Your task to perform on an android device: Set an alarm for 11am Image 0: 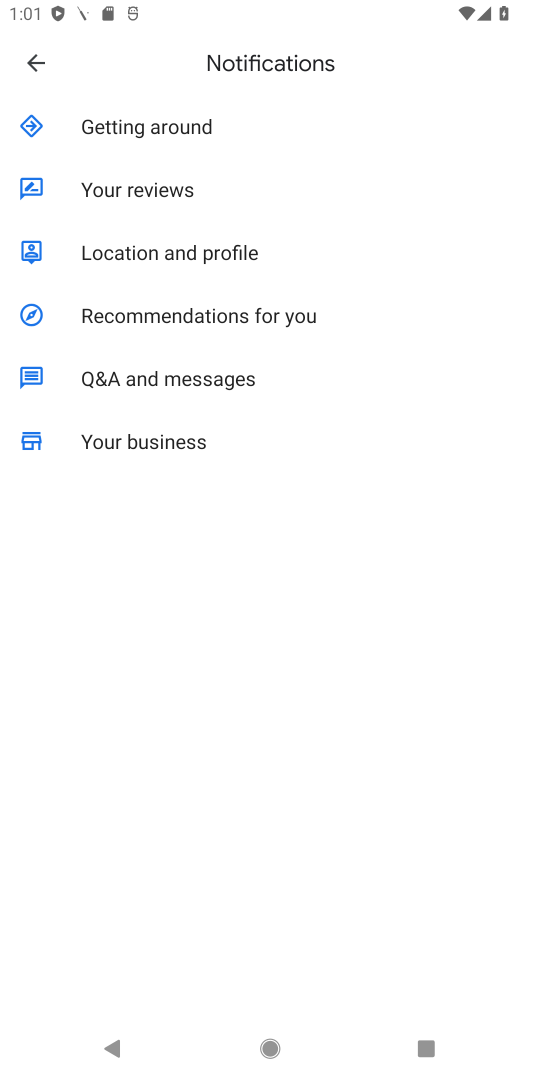
Step 0: press home button
Your task to perform on an android device: Set an alarm for 11am Image 1: 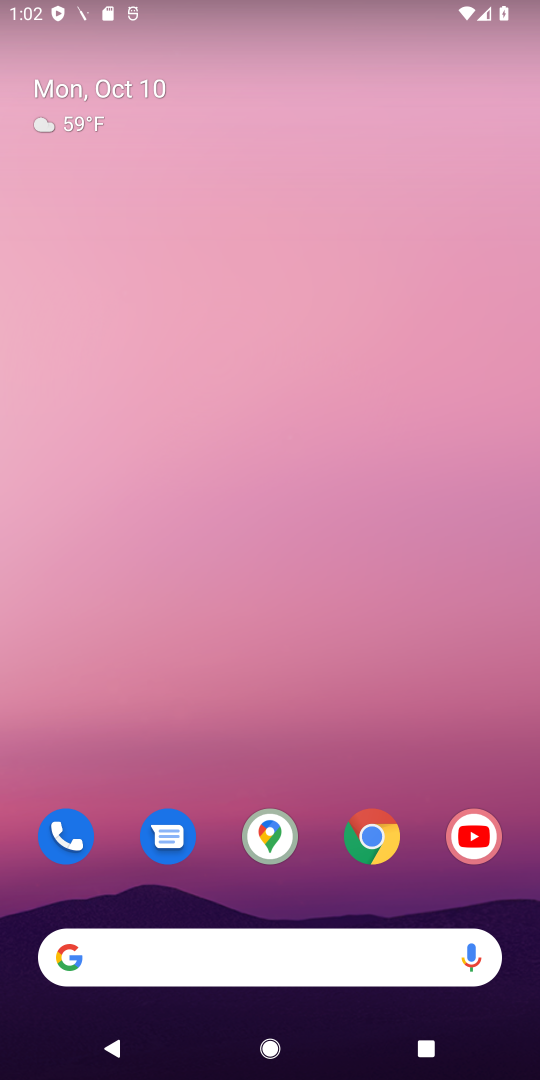
Step 1: drag from (409, 765) to (377, 549)
Your task to perform on an android device: Set an alarm for 11am Image 2: 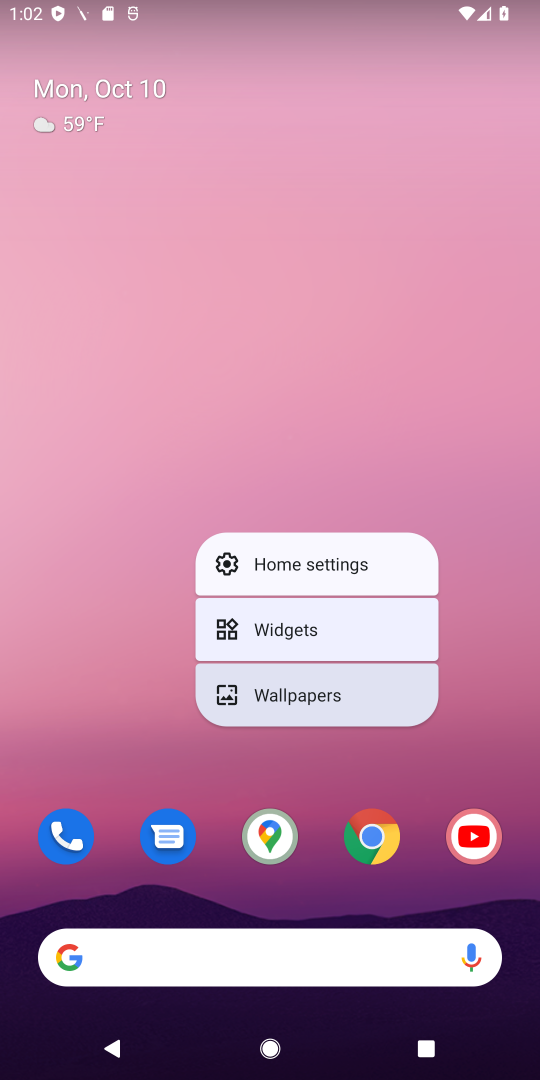
Step 2: click (505, 419)
Your task to perform on an android device: Set an alarm for 11am Image 3: 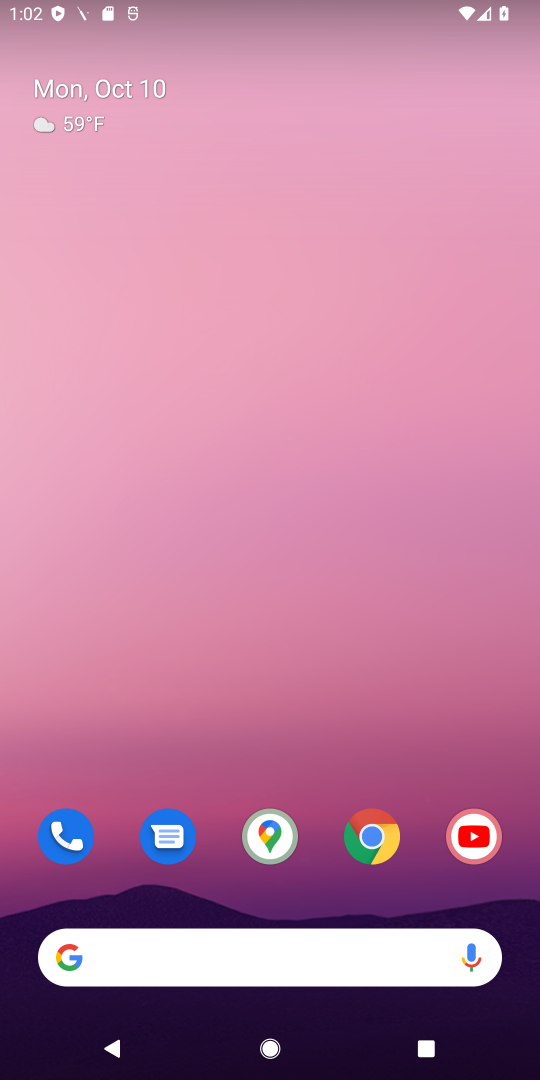
Step 3: drag from (345, 785) to (326, 292)
Your task to perform on an android device: Set an alarm for 11am Image 4: 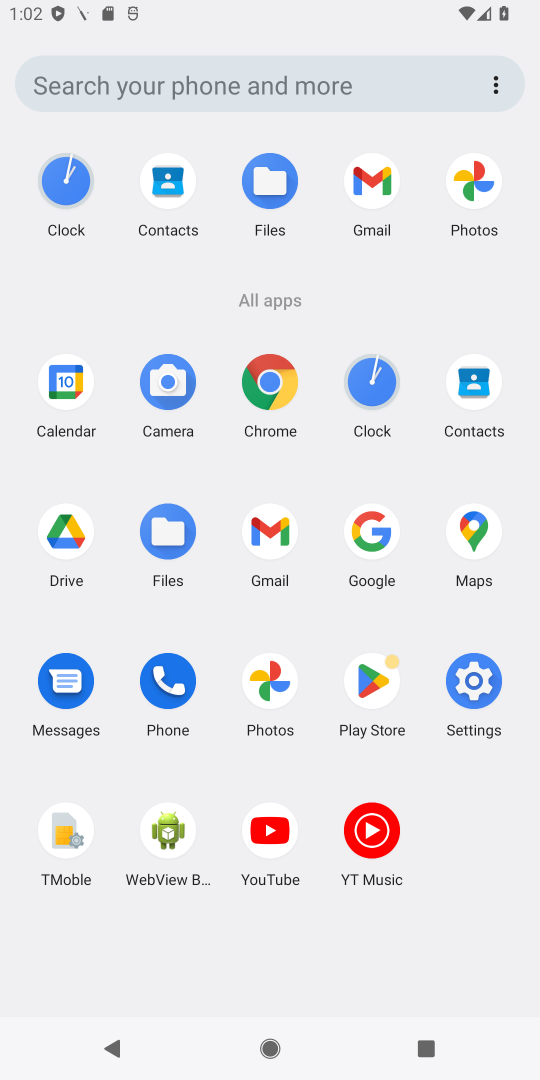
Step 4: click (388, 385)
Your task to perform on an android device: Set an alarm for 11am Image 5: 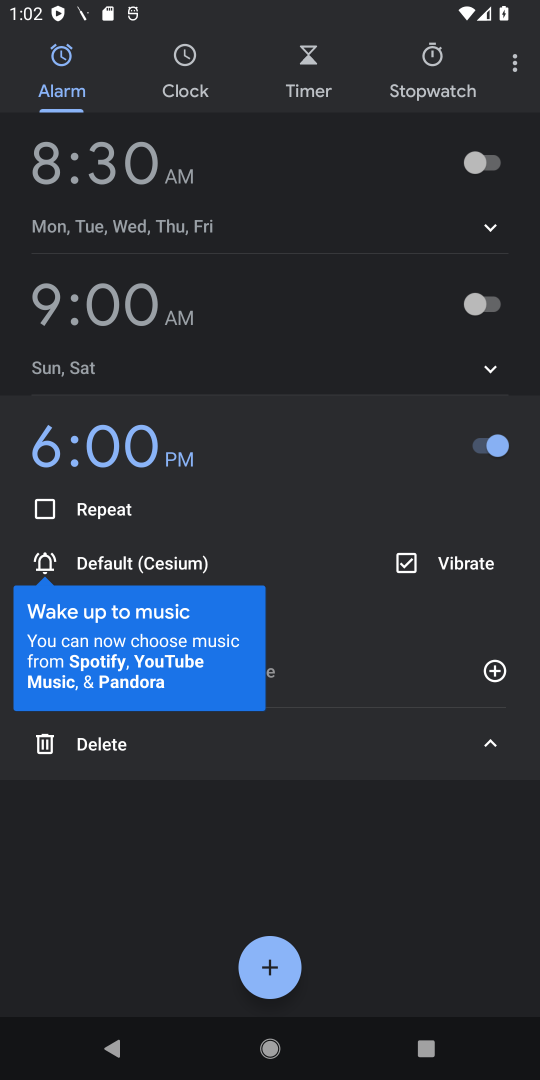
Step 5: click (290, 960)
Your task to perform on an android device: Set an alarm for 11am Image 6: 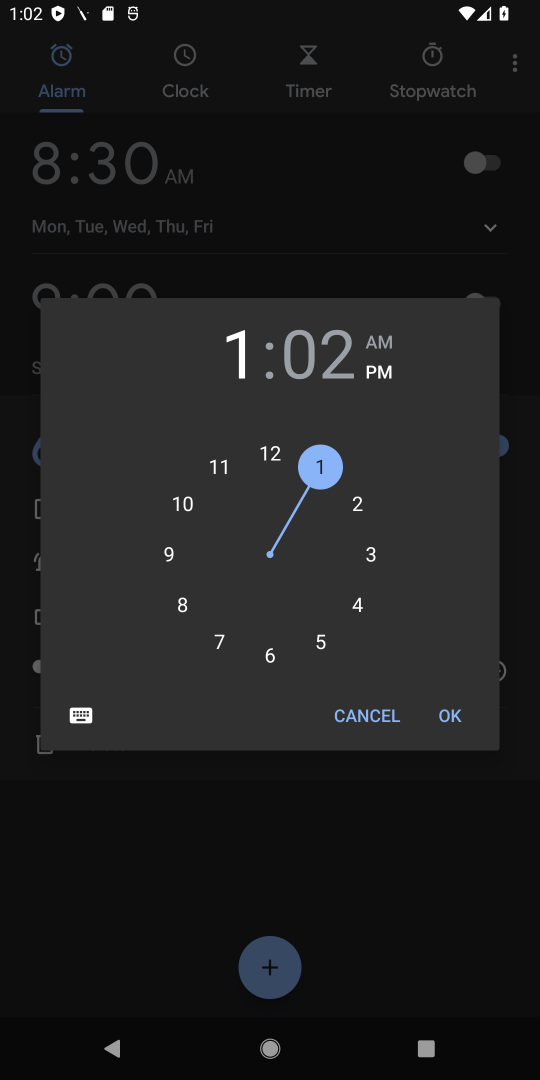
Step 6: click (224, 467)
Your task to perform on an android device: Set an alarm for 11am Image 7: 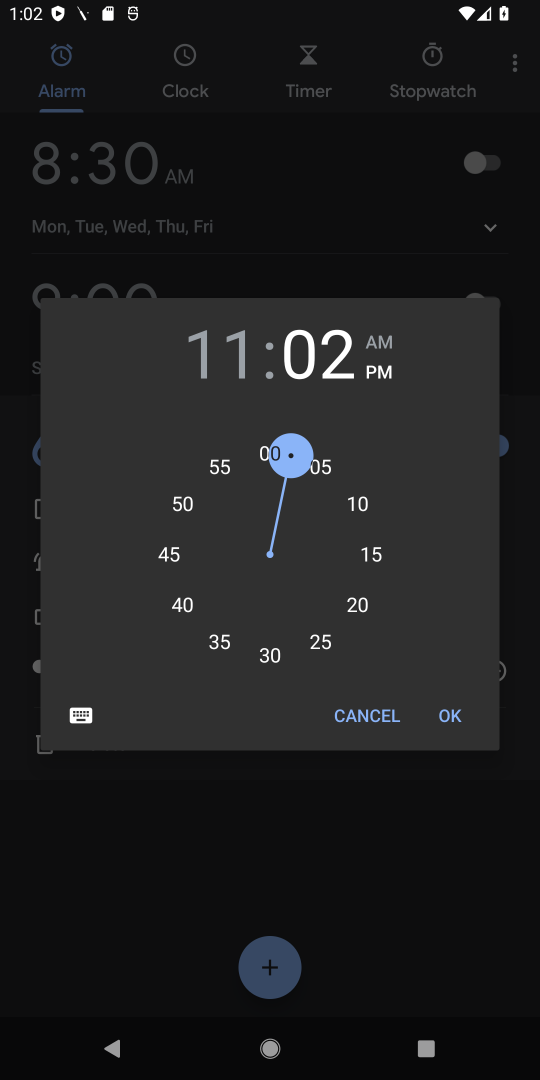
Step 7: click (271, 460)
Your task to perform on an android device: Set an alarm for 11am Image 8: 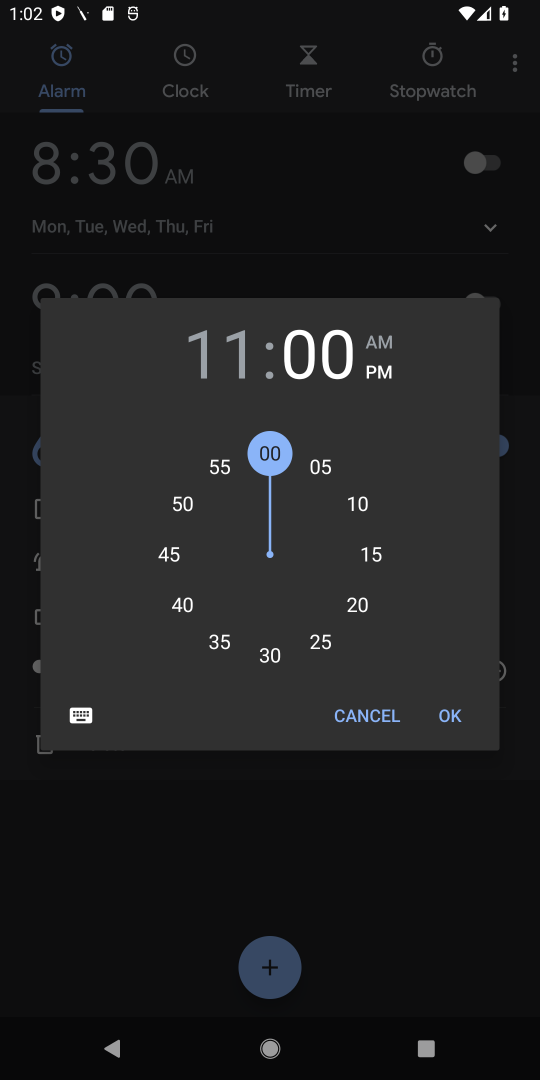
Step 8: click (391, 346)
Your task to perform on an android device: Set an alarm for 11am Image 9: 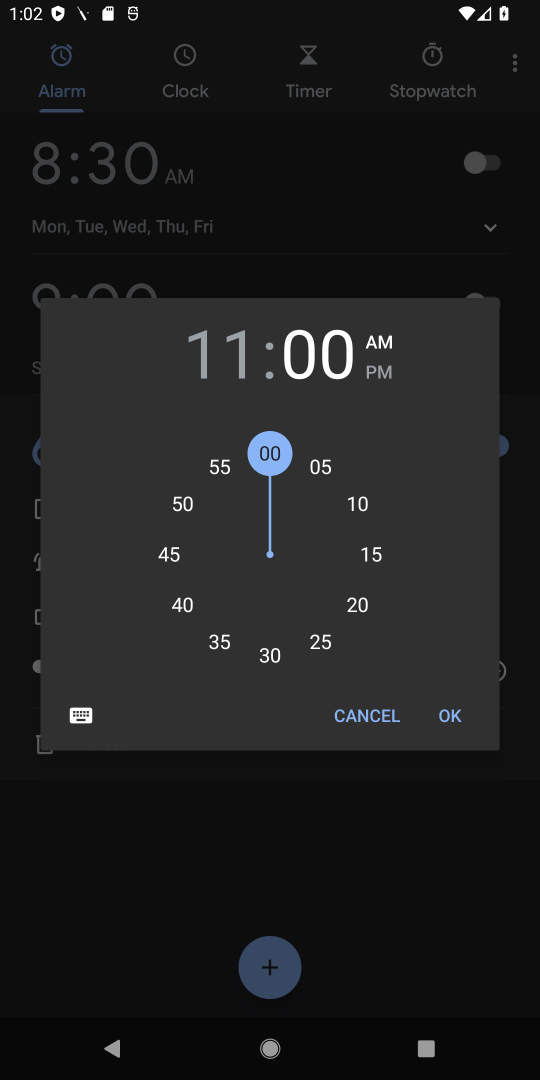
Step 9: click (459, 716)
Your task to perform on an android device: Set an alarm for 11am Image 10: 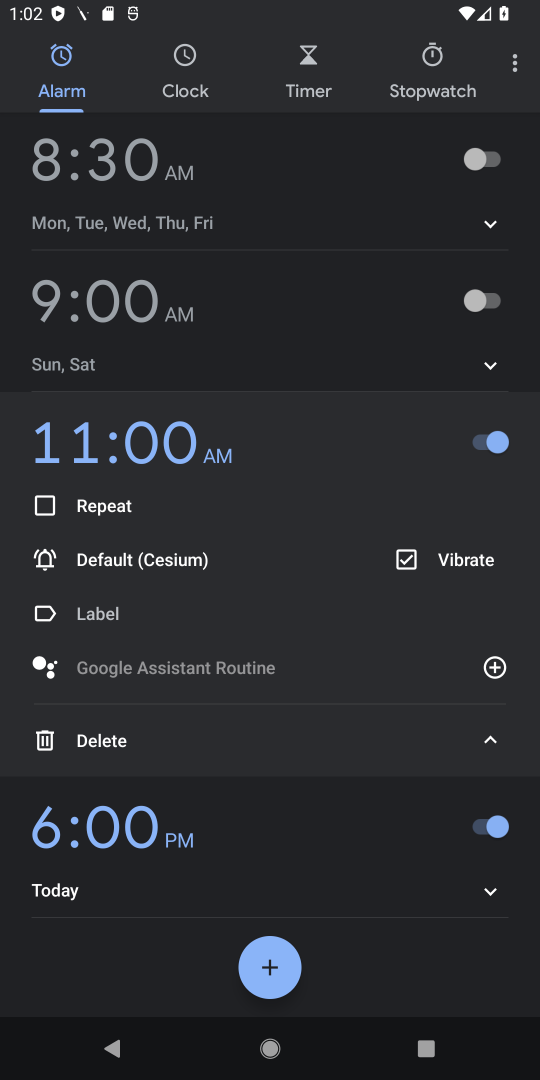
Step 10: task complete